Your task to perform on an android device: Search for vegetarian restaurants on Maps Image 0: 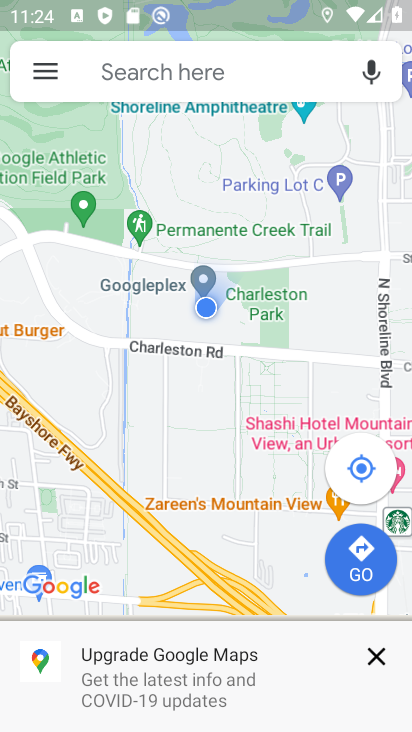
Step 0: press home button
Your task to perform on an android device: Search for vegetarian restaurants on Maps Image 1: 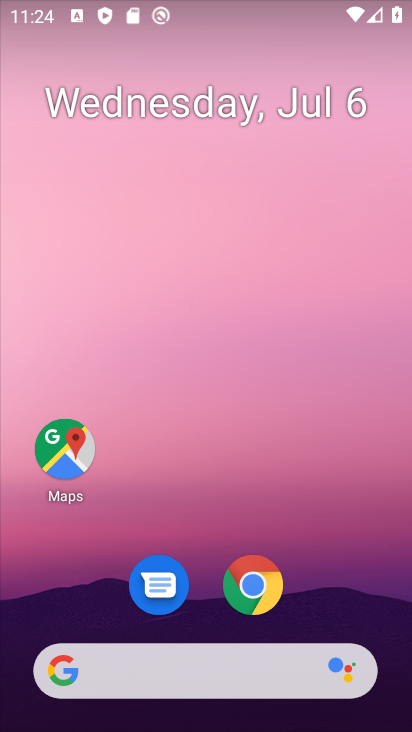
Step 1: click (75, 445)
Your task to perform on an android device: Search for vegetarian restaurants on Maps Image 2: 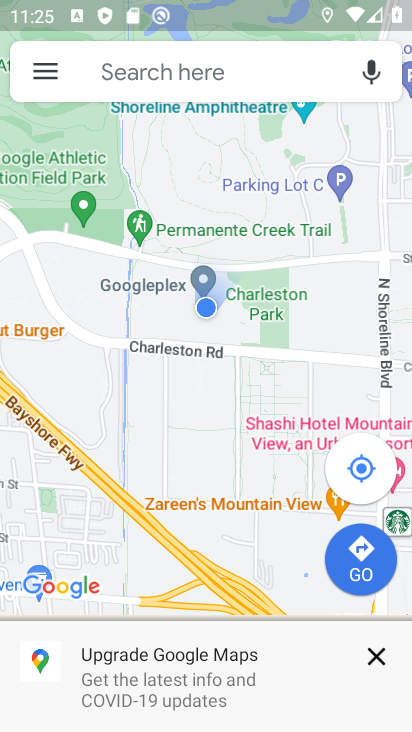
Step 2: click (242, 78)
Your task to perform on an android device: Search for vegetarian restaurants on Maps Image 3: 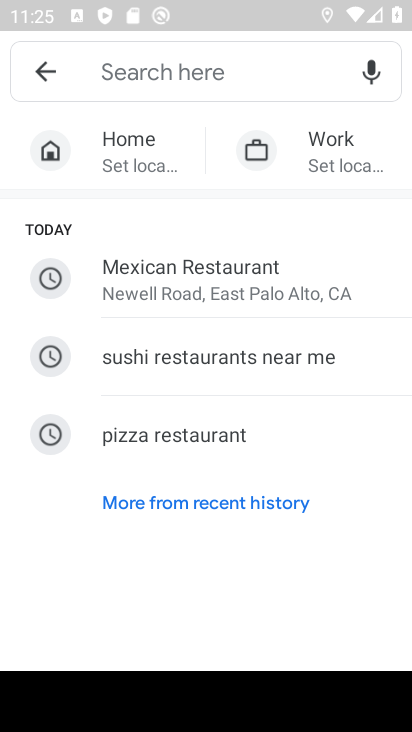
Step 3: type "vegetarian restaurants"
Your task to perform on an android device: Search for vegetarian restaurants on Maps Image 4: 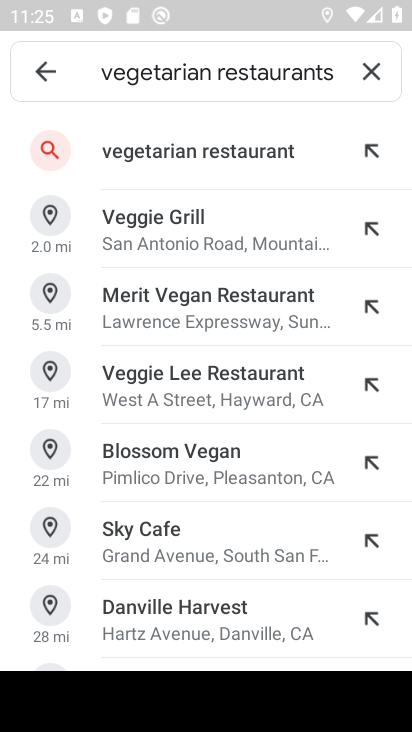
Step 4: click (239, 151)
Your task to perform on an android device: Search for vegetarian restaurants on Maps Image 5: 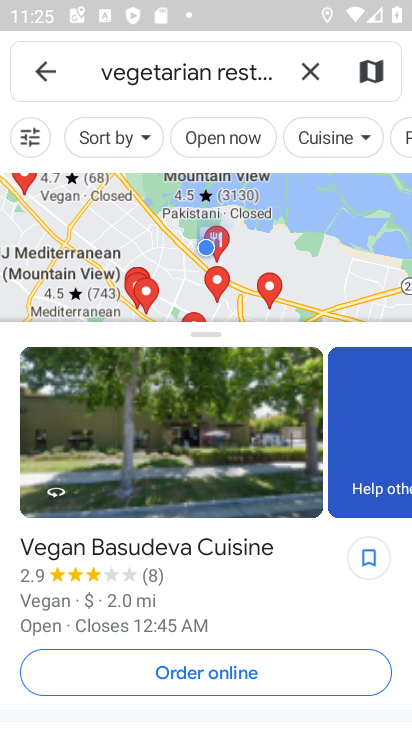
Step 5: task complete